Your task to perform on an android device: move an email to a new category in the gmail app Image 0: 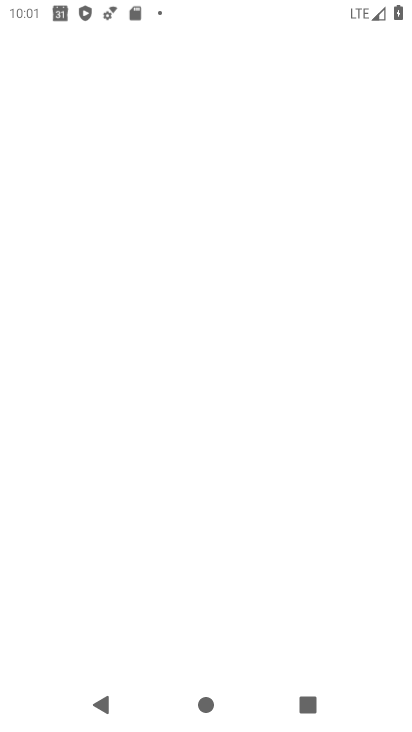
Step 0: drag from (19, 231) to (278, 152)
Your task to perform on an android device: move an email to a new category in the gmail app Image 1: 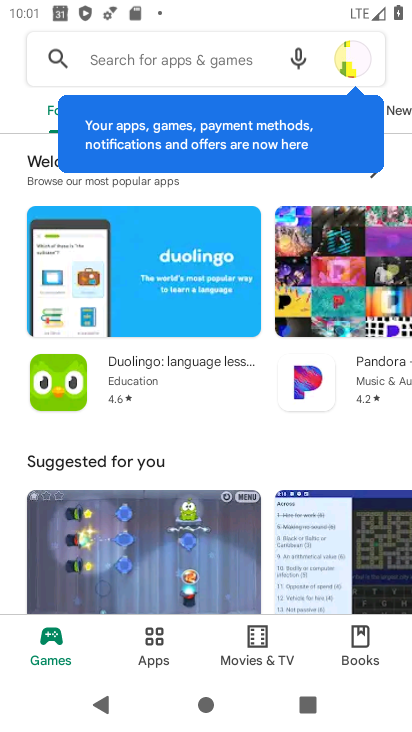
Step 1: press home button
Your task to perform on an android device: move an email to a new category in the gmail app Image 2: 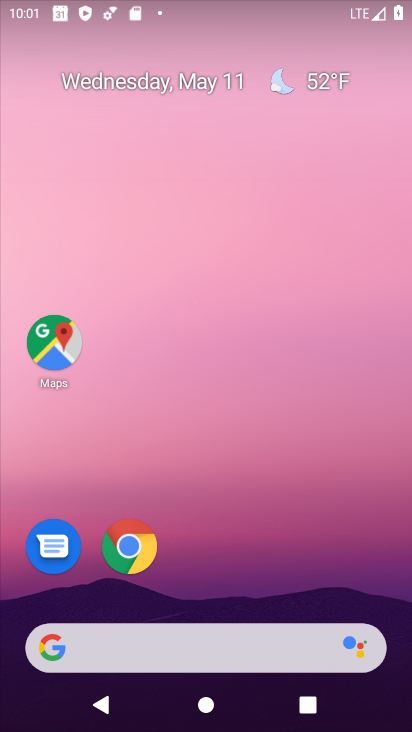
Step 2: drag from (212, 647) to (179, 254)
Your task to perform on an android device: move an email to a new category in the gmail app Image 3: 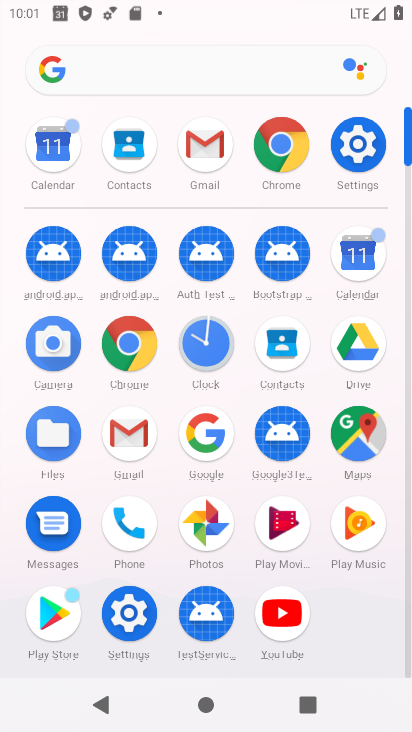
Step 3: click (125, 437)
Your task to perform on an android device: move an email to a new category in the gmail app Image 4: 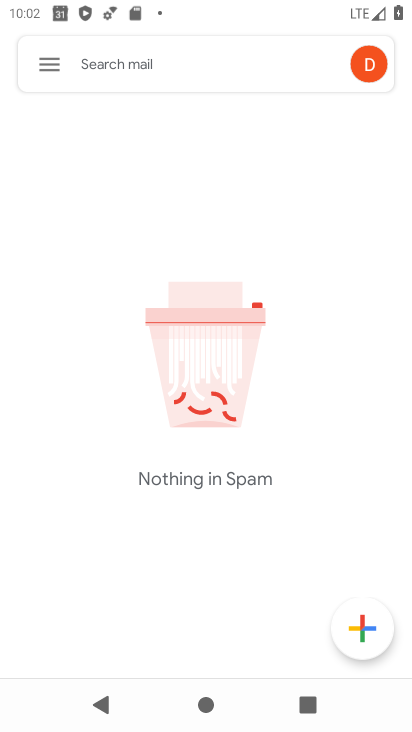
Step 4: click (53, 65)
Your task to perform on an android device: move an email to a new category in the gmail app Image 5: 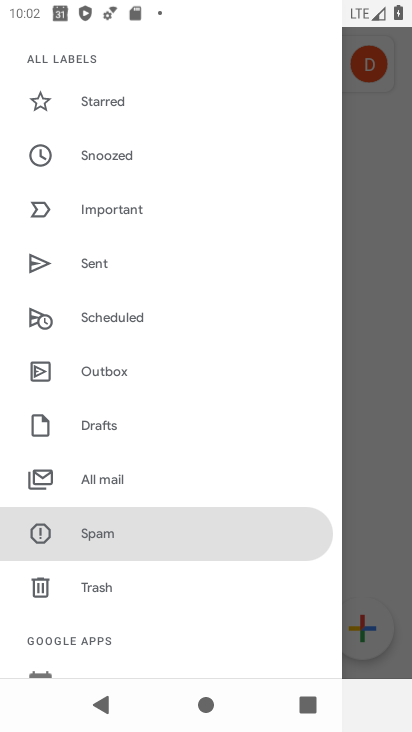
Step 5: click (115, 478)
Your task to perform on an android device: move an email to a new category in the gmail app Image 6: 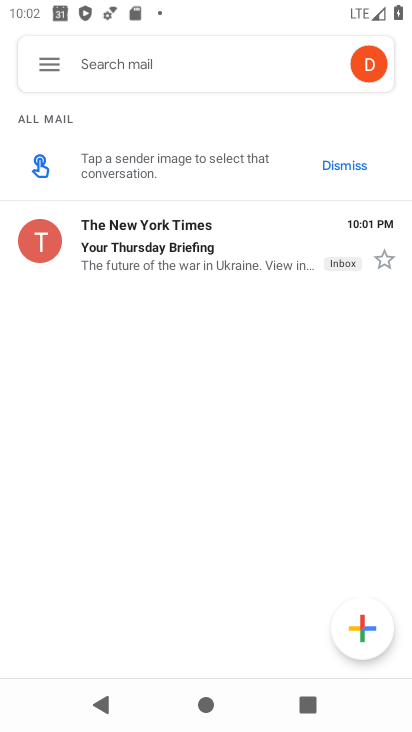
Step 6: click (35, 241)
Your task to perform on an android device: move an email to a new category in the gmail app Image 7: 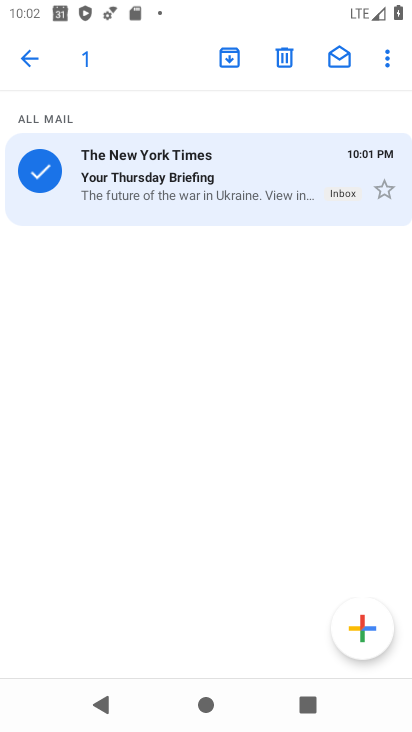
Step 7: click (390, 53)
Your task to perform on an android device: move an email to a new category in the gmail app Image 8: 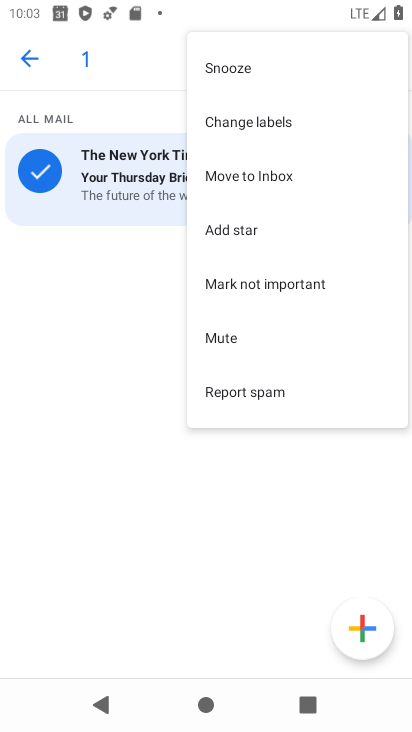
Step 8: click (269, 180)
Your task to perform on an android device: move an email to a new category in the gmail app Image 9: 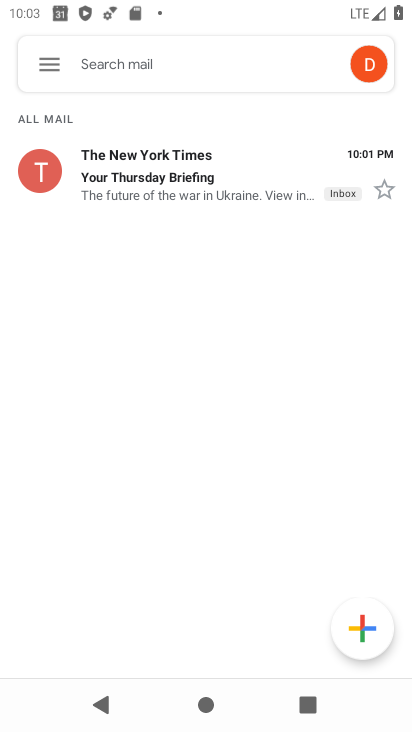
Step 9: task complete